Your task to perform on an android device: Open Wikipedia Image 0: 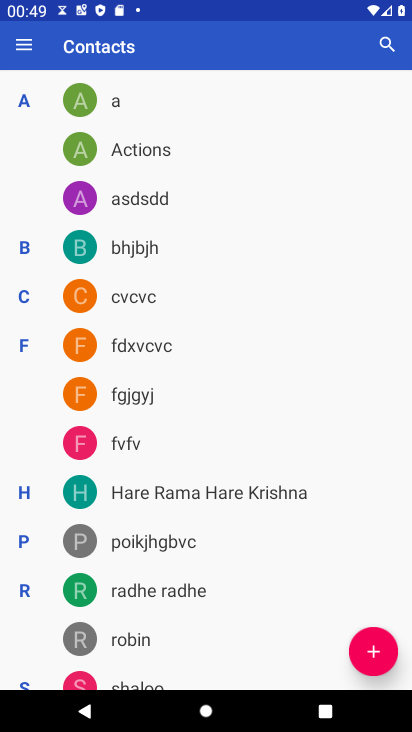
Step 0: press back button
Your task to perform on an android device: Open Wikipedia Image 1: 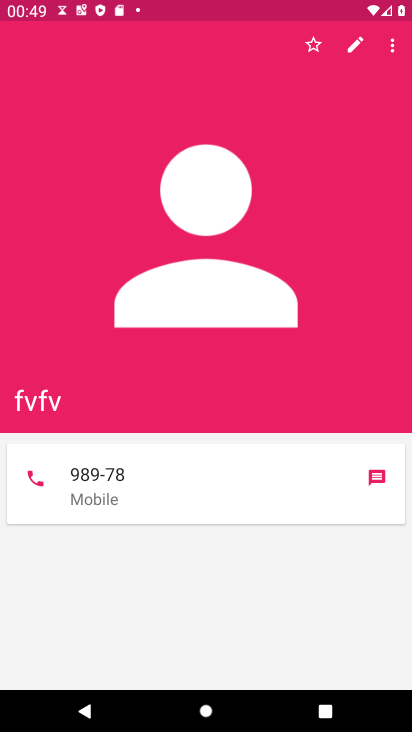
Step 1: press back button
Your task to perform on an android device: Open Wikipedia Image 2: 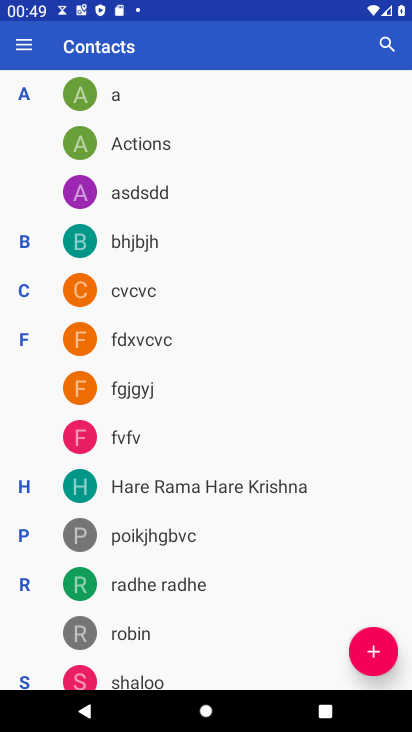
Step 2: press back button
Your task to perform on an android device: Open Wikipedia Image 3: 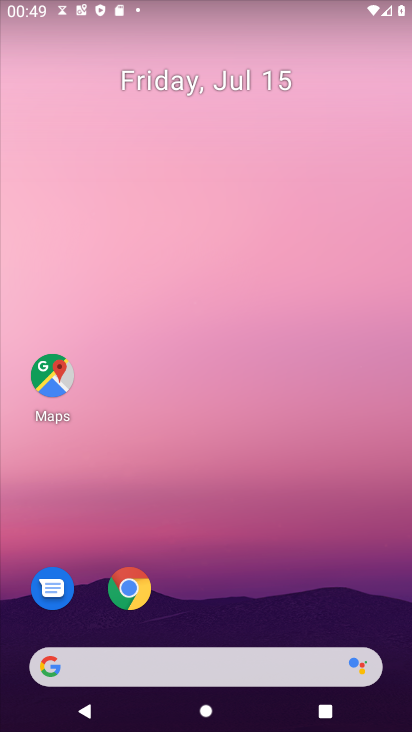
Step 3: click (126, 592)
Your task to perform on an android device: Open Wikipedia Image 4: 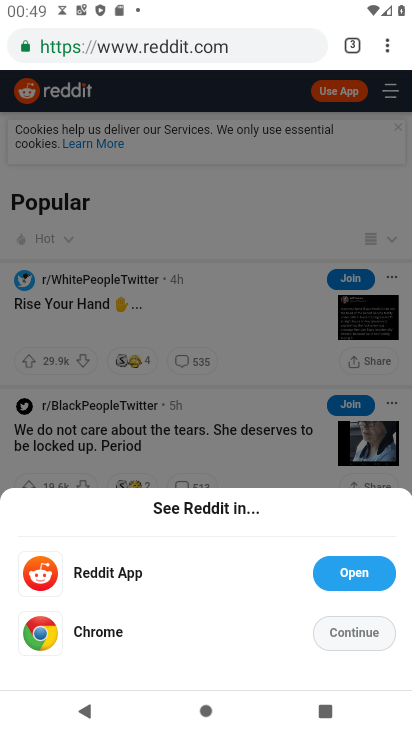
Step 4: click (357, 42)
Your task to perform on an android device: Open Wikipedia Image 5: 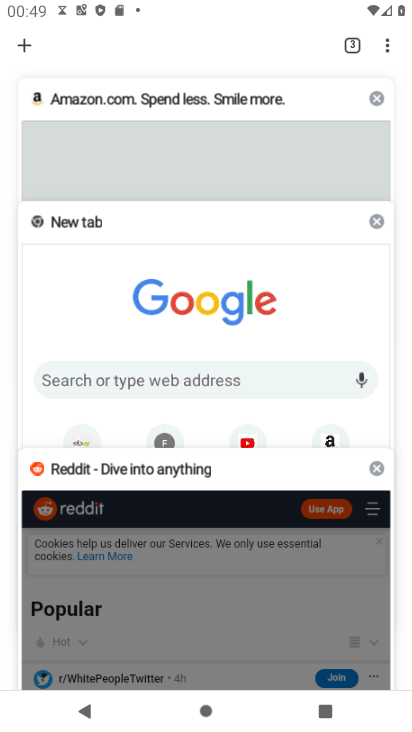
Step 5: click (80, 227)
Your task to perform on an android device: Open Wikipedia Image 6: 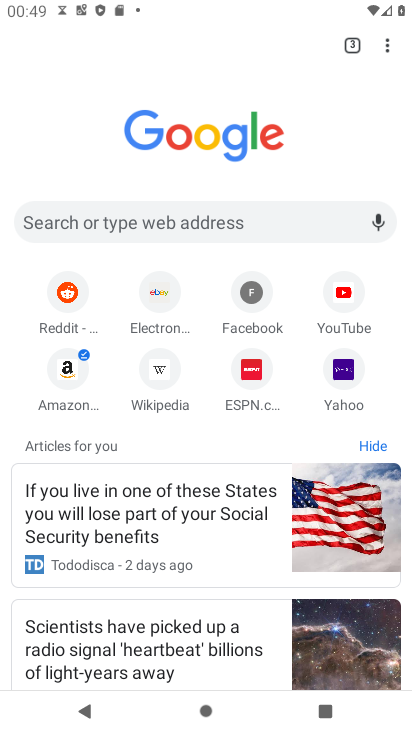
Step 6: click (148, 357)
Your task to perform on an android device: Open Wikipedia Image 7: 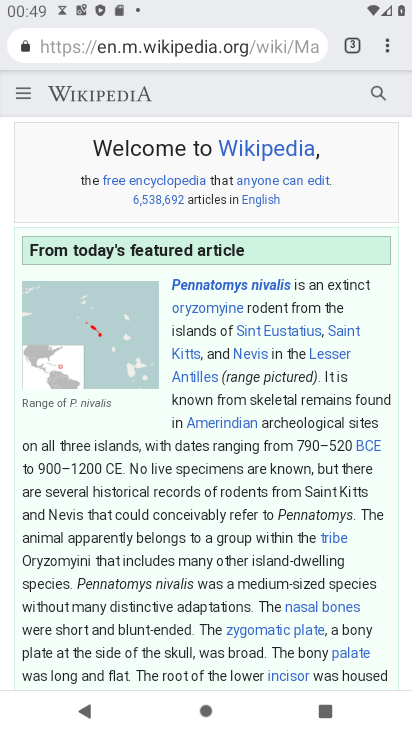
Step 7: task complete